Your task to perform on an android device: Go to Maps Image 0: 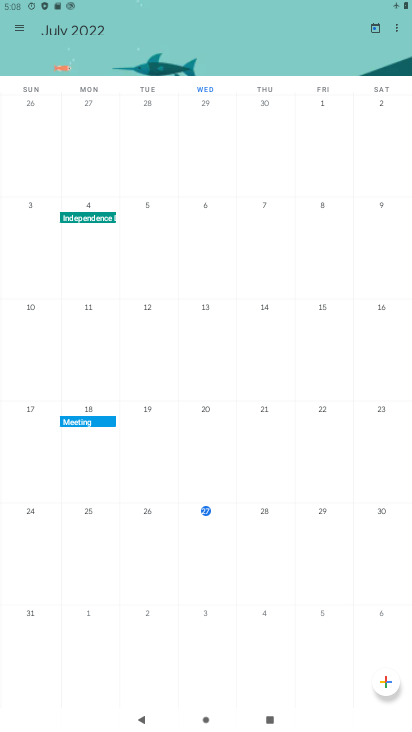
Step 0: press home button
Your task to perform on an android device: Go to Maps Image 1: 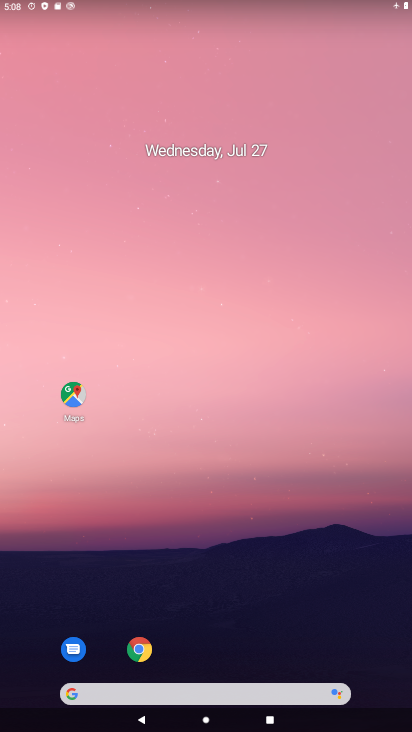
Step 1: drag from (177, 690) to (211, 0)
Your task to perform on an android device: Go to Maps Image 2: 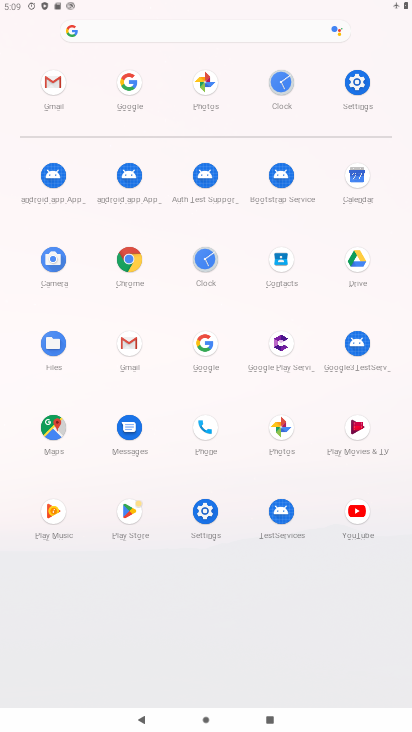
Step 2: click (55, 427)
Your task to perform on an android device: Go to Maps Image 3: 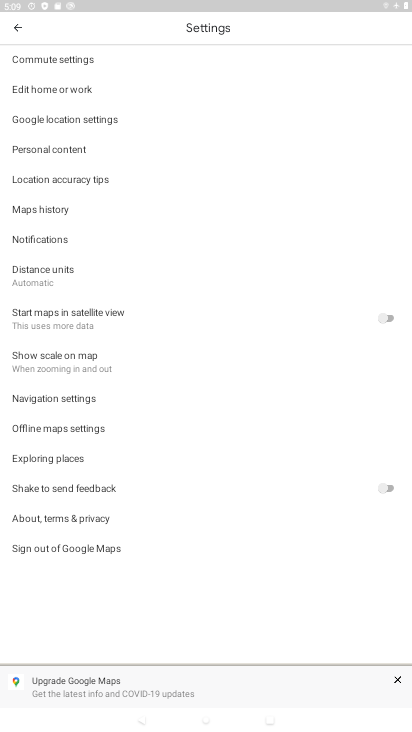
Step 3: task complete